Your task to perform on an android device: Open Android settings Image 0: 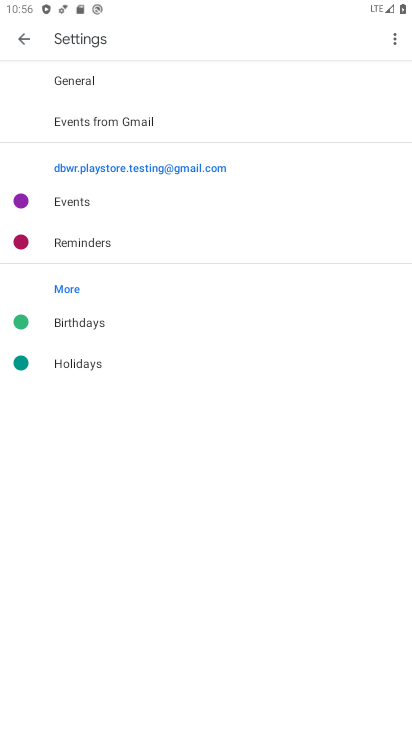
Step 0: press home button
Your task to perform on an android device: Open Android settings Image 1: 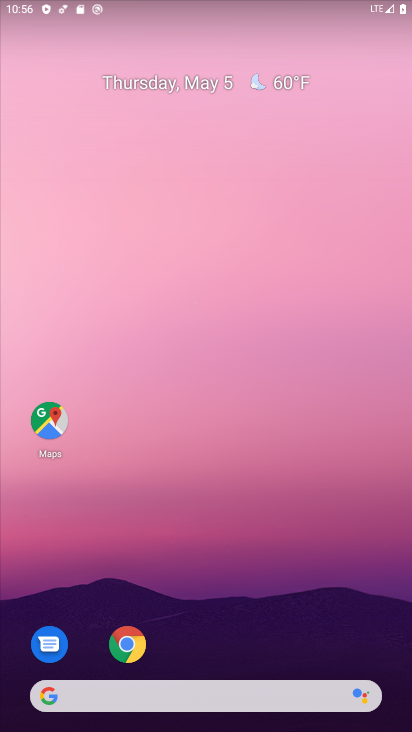
Step 1: drag from (307, 617) to (302, 167)
Your task to perform on an android device: Open Android settings Image 2: 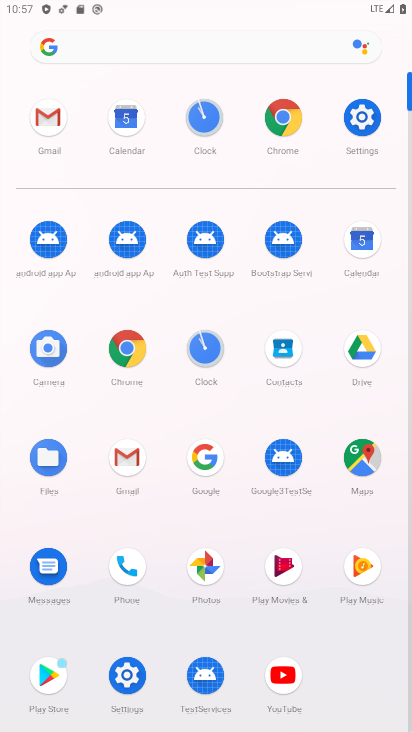
Step 2: click (113, 679)
Your task to perform on an android device: Open Android settings Image 3: 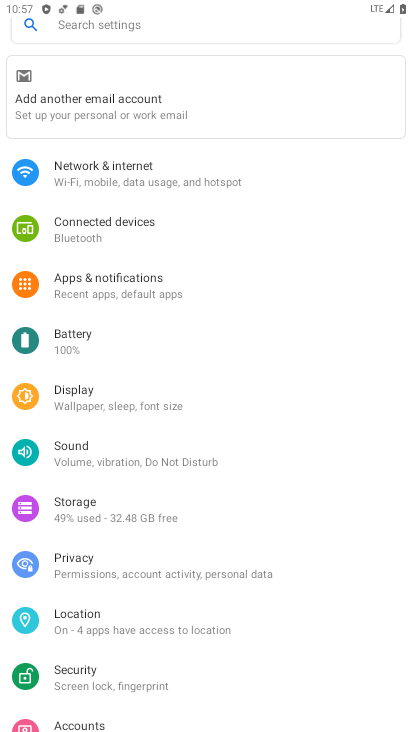
Step 3: task complete